Your task to perform on an android device: move a message to another label in the gmail app Image 0: 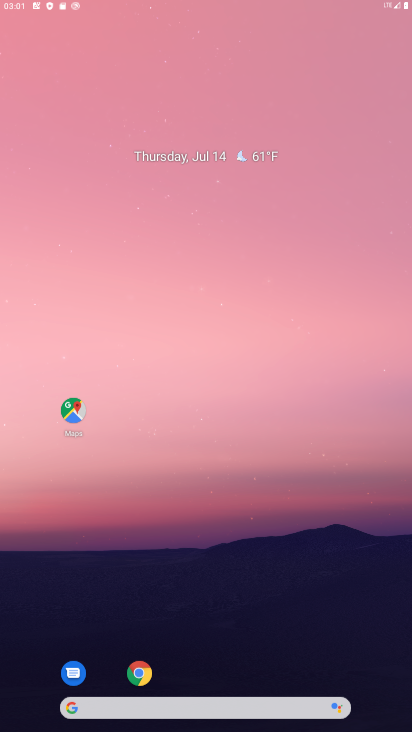
Step 0: click (217, 58)
Your task to perform on an android device: move a message to another label in the gmail app Image 1: 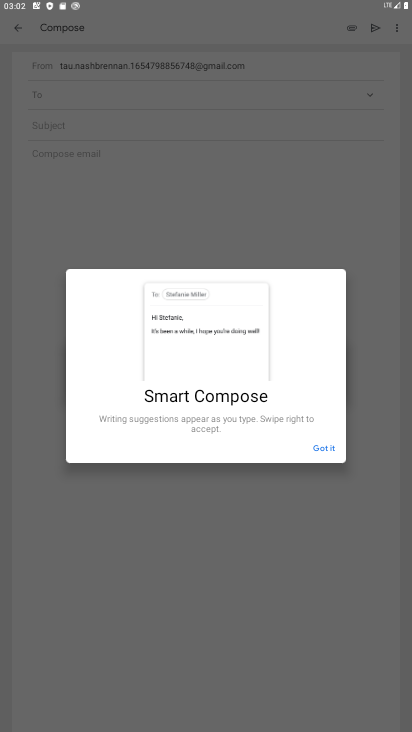
Step 1: click (329, 443)
Your task to perform on an android device: move a message to another label in the gmail app Image 2: 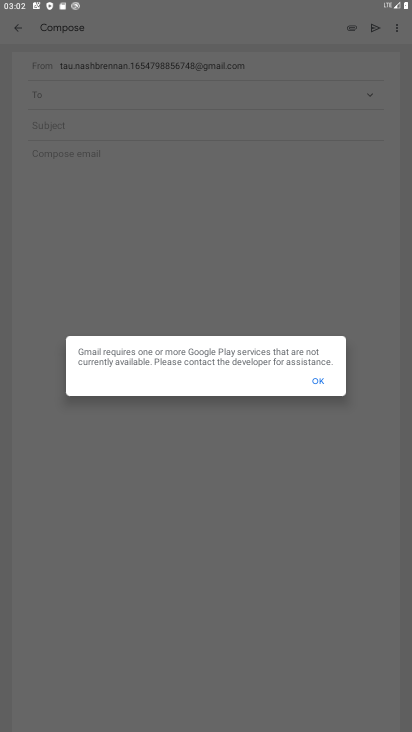
Step 2: press home button
Your task to perform on an android device: move a message to another label in the gmail app Image 3: 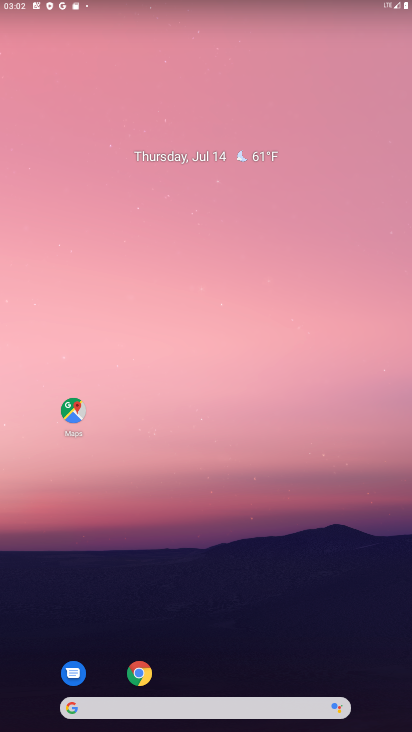
Step 3: drag from (177, 670) to (150, 237)
Your task to perform on an android device: move a message to another label in the gmail app Image 4: 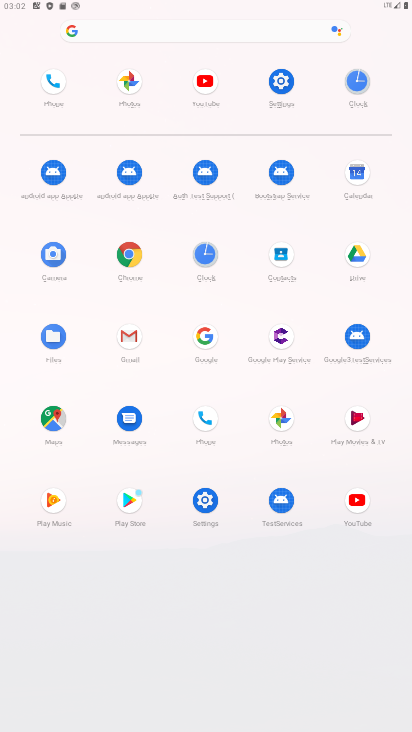
Step 4: click (128, 347)
Your task to perform on an android device: move a message to another label in the gmail app Image 5: 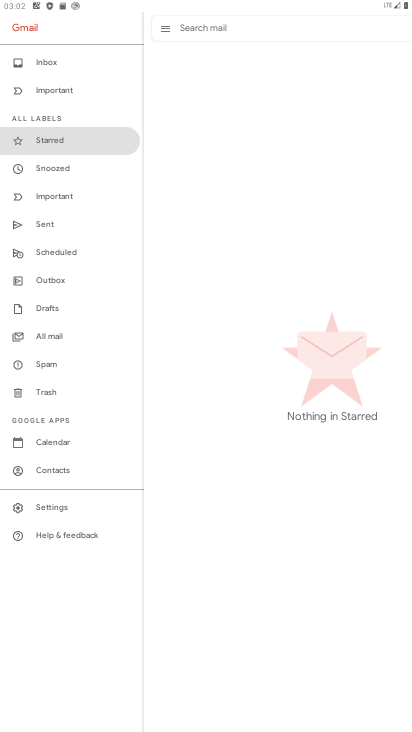
Step 5: click (45, 341)
Your task to perform on an android device: move a message to another label in the gmail app Image 6: 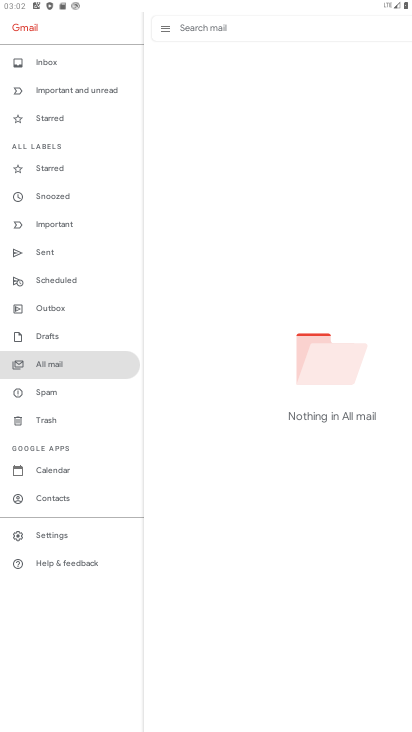
Step 6: task complete